Your task to perform on an android device: When is my next appointment? Image 0: 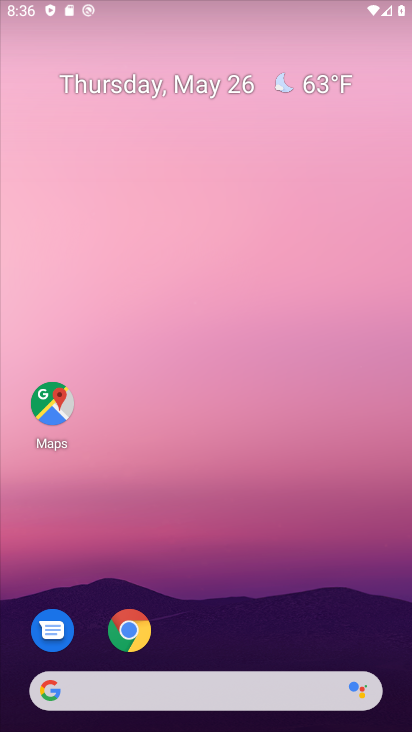
Step 0: drag from (232, 705) to (204, 267)
Your task to perform on an android device: When is my next appointment? Image 1: 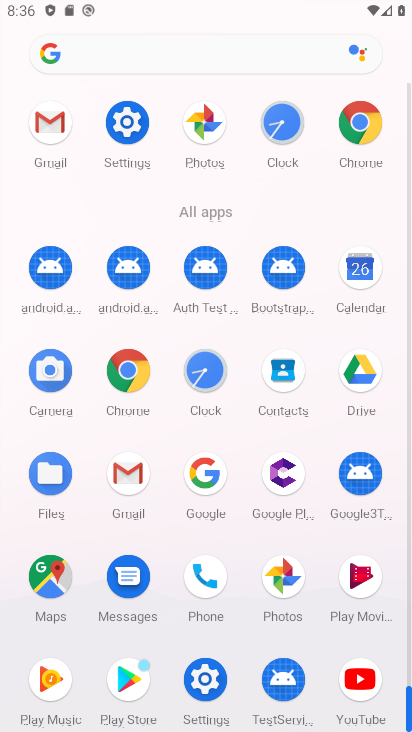
Step 1: click (356, 260)
Your task to perform on an android device: When is my next appointment? Image 2: 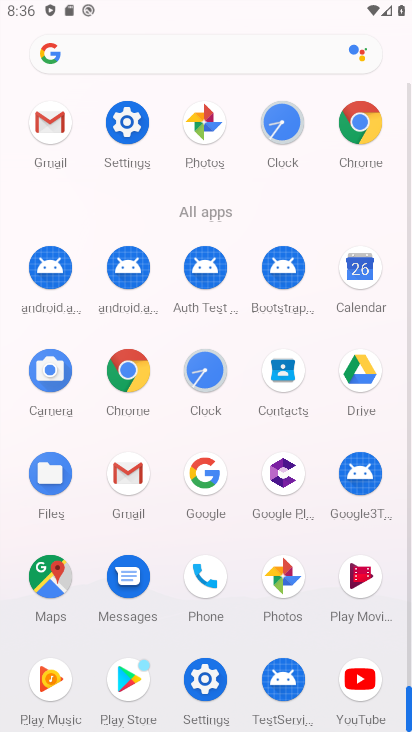
Step 2: click (363, 268)
Your task to perform on an android device: When is my next appointment? Image 3: 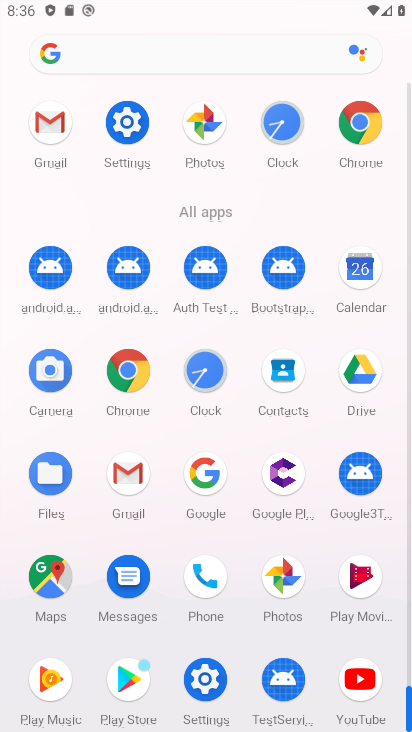
Step 3: click (368, 267)
Your task to perform on an android device: When is my next appointment? Image 4: 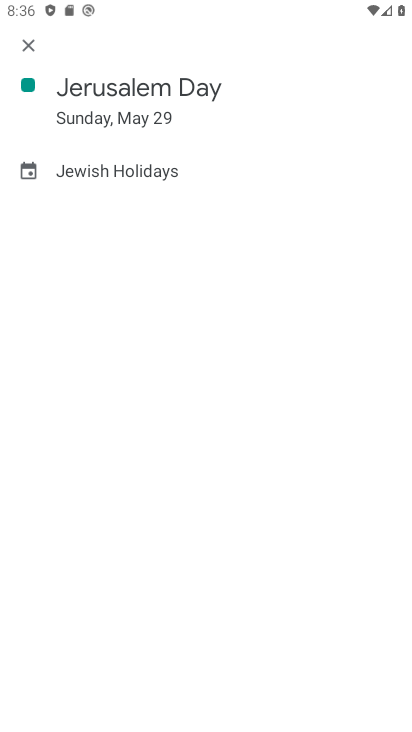
Step 4: click (30, 51)
Your task to perform on an android device: When is my next appointment? Image 5: 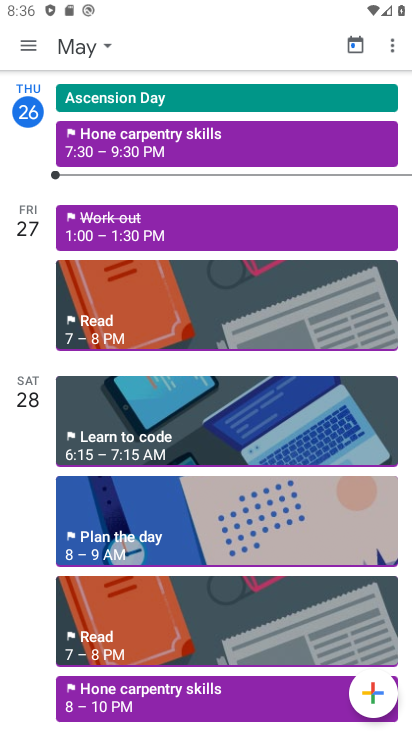
Step 5: task complete